Your task to perform on an android device: Open Wikipedia Image 0: 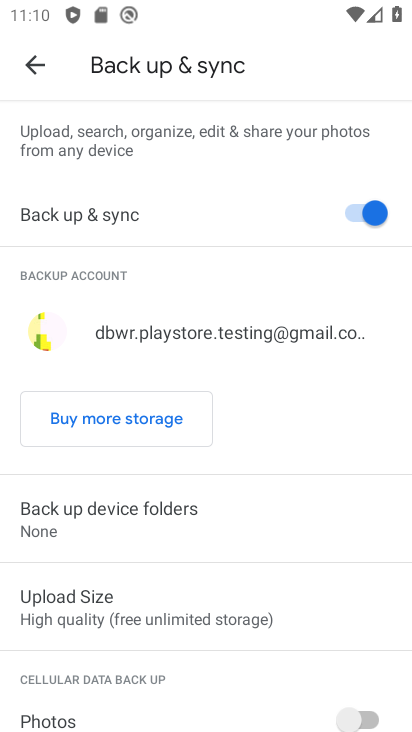
Step 0: press home button
Your task to perform on an android device: Open Wikipedia Image 1: 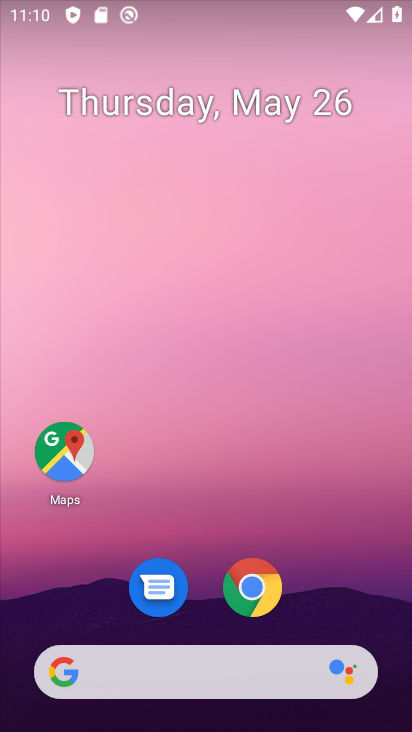
Step 1: drag from (233, 702) to (360, 164)
Your task to perform on an android device: Open Wikipedia Image 2: 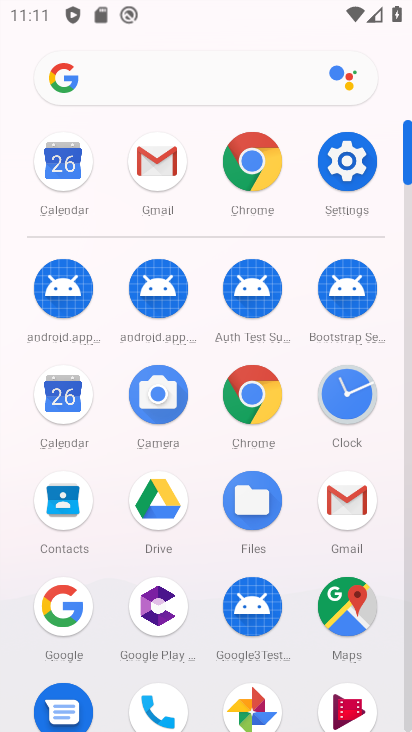
Step 2: click (265, 171)
Your task to perform on an android device: Open Wikipedia Image 3: 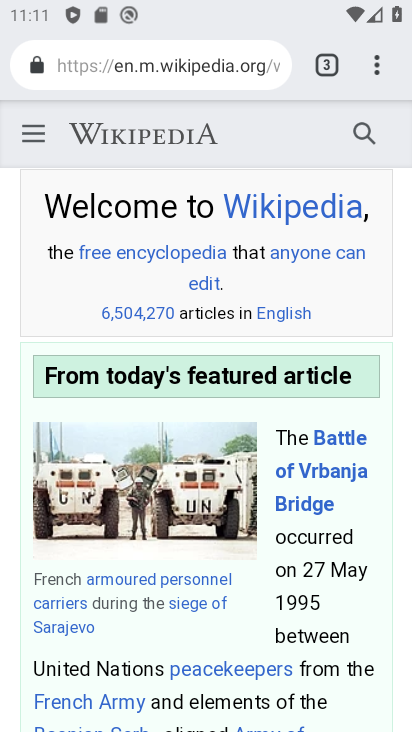
Step 3: click (326, 76)
Your task to perform on an android device: Open Wikipedia Image 4: 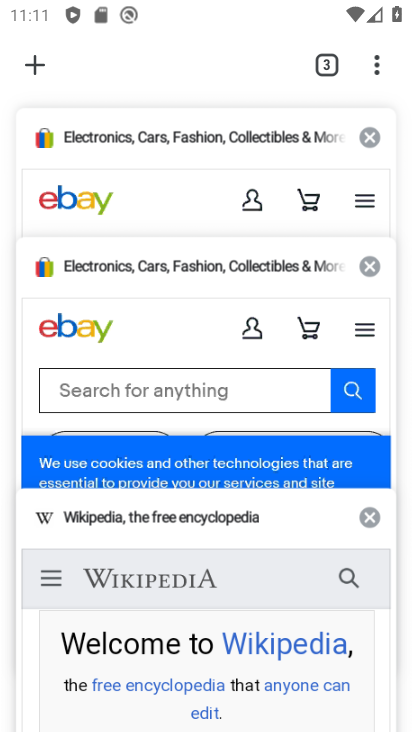
Step 4: click (32, 62)
Your task to perform on an android device: Open Wikipedia Image 5: 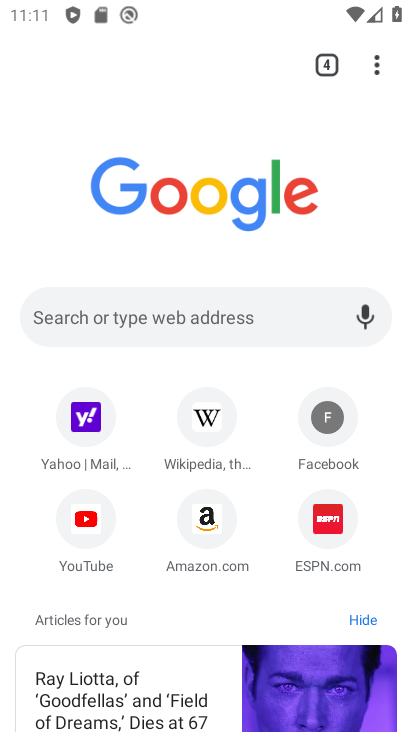
Step 5: click (195, 435)
Your task to perform on an android device: Open Wikipedia Image 6: 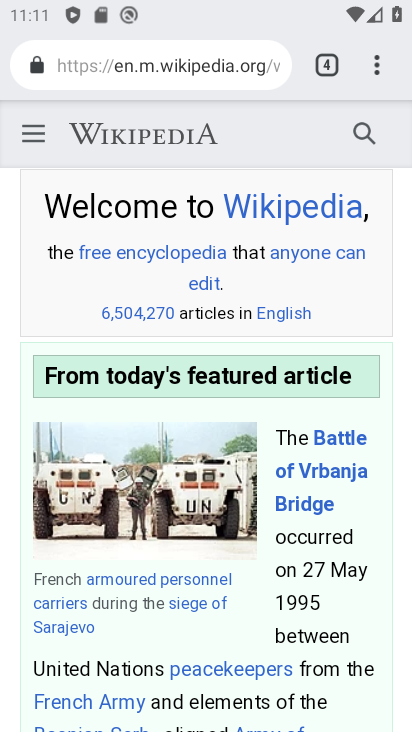
Step 6: task complete